Your task to perform on an android device: Show the shopping cart on ebay.com. Add logitech g903 to the cart on ebay.com, then select checkout. Image 0: 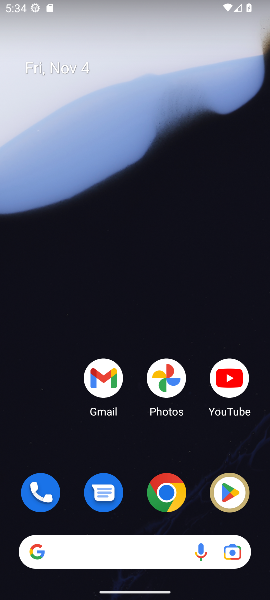
Step 0: drag from (125, 458) to (142, 16)
Your task to perform on an android device: Show the shopping cart on ebay.com. Add logitech g903 to the cart on ebay.com, then select checkout. Image 1: 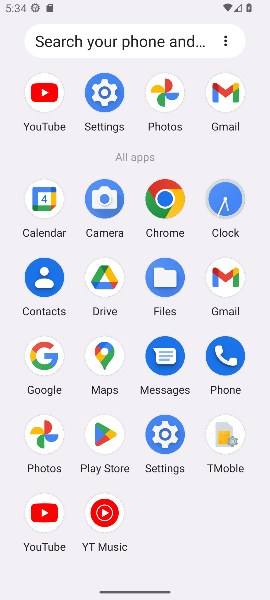
Step 1: click (164, 198)
Your task to perform on an android device: Show the shopping cart on ebay.com. Add logitech g903 to the cart on ebay.com, then select checkout. Image 2: 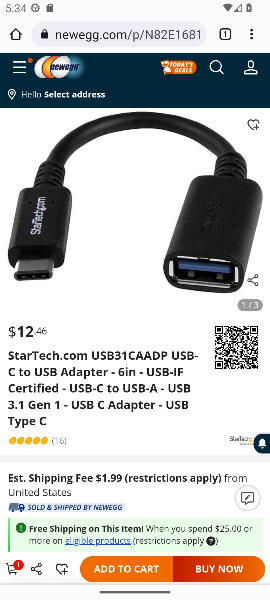
Step 2: click (164, 29)
Your task to perform on an android device: Show the shopping cart on ebay.com. Add logitech g903 to the cart on ebay.com, then select checkout. Image 3: 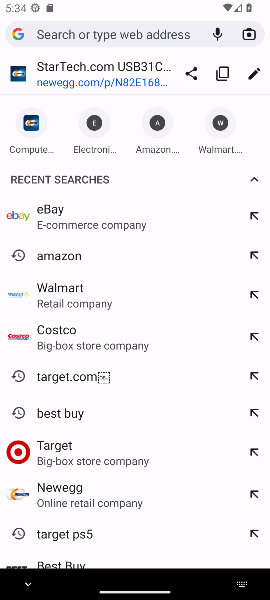
Step 3: type "ebay.com"
Your task to perform on an android device: Show the shopping cart on ebay.com. Add logitech g903 to the cart on ebay.com, then select checkout. Image 4: 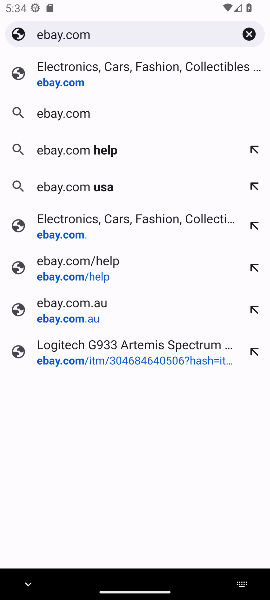
Step 4: press enter
Your task to perform on an android device: Show the shopping cart on ebay.com. Add logitech g903 to the cart on ebay.com, then select checkout. Image 5: 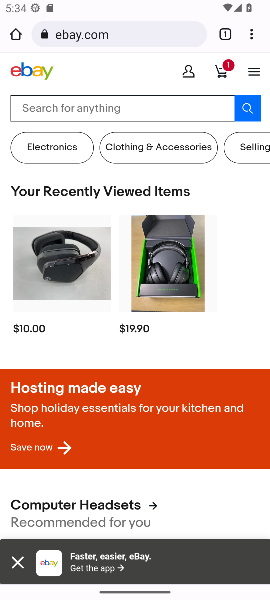
Step 5: click (225, 74)
Your task to perform on an android device: Show the shopping cart on ebay.com. Add logitech g903 to the cart on ebay.com, then select checkout. Image 6: 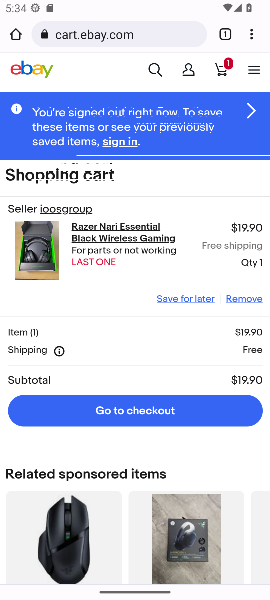
Step 6: click (157, 66)
Your task to perform on an android device: Show the shopping cart on ebay.com. Add logitech g903 to the cart on ebay.com, then select checkout. Image 7: 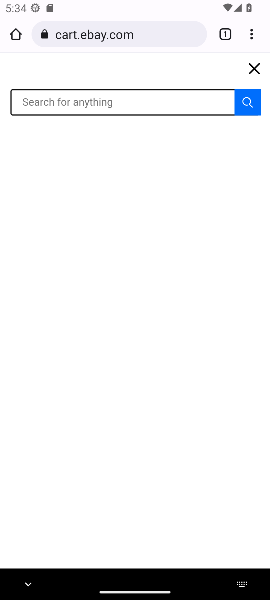
Step 7: type "logitech g903"
Your task to perform on an android device: Show the shopping cart on ebay.com. Add logitech g903 to the cart on ebay.com, then select checkout. Image 8: 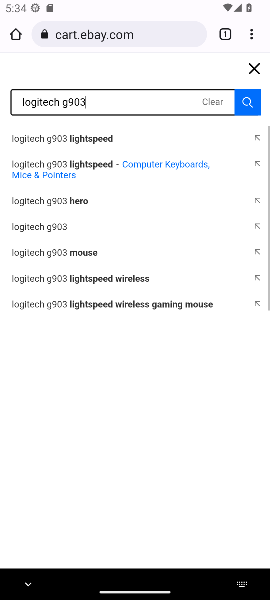
Step 8: press enter
Your task to perform on an android device: Show the shopping cart on ebay.com. Add logitech g903 to the cart on ebay.com, then select checkout. Image 9: 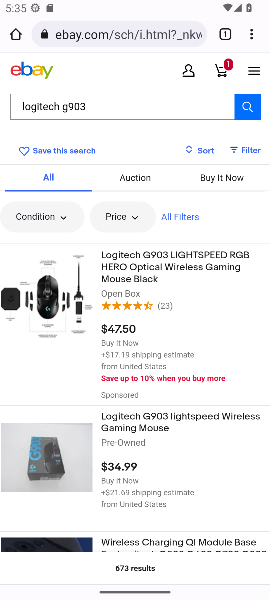
Step 9: click (135, 260)
Your task to perform on an android device: Show the shopping cart on ebay.com. Add logitech g903 to the cart on ebay.com, then select checkout. Image 10: 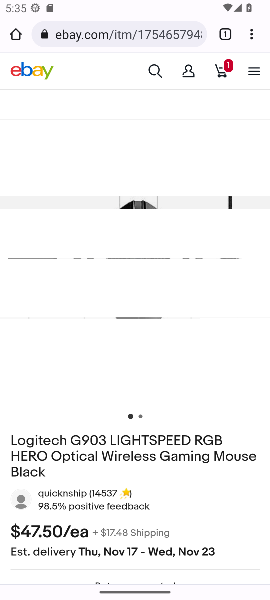
Step 10: drag from (159, 482) to (141, 42)
Your task to perform on an android device: Show the shopping cart on ebay.com. Add logitech g903 to the cart on ebay.com, then select checkout. Image 11: 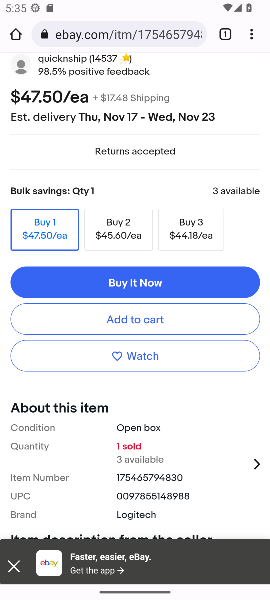
Step 11: click (150, 319)
Your task to perform on an android device: Show the shopping cart on ebay.com. Add logitech g903 to the cart on ebay.com, then select checkout. Image 12: 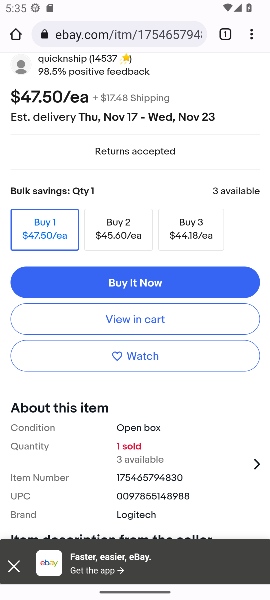
Step 12: click (150, 319)
Your task to perform on an android device: Show the shopping cart on ebay.com. Add logitech g903 to the cart on ebay.com, then select checkout. Image 13: 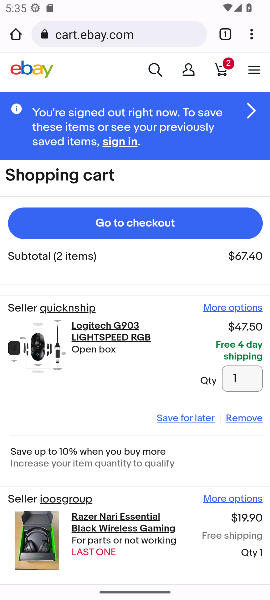
Step 13: click (159, 219)
Your task to perform on an android device: Show the shopping cart on ebay.com. Add logitech g903 to the cart on ebay.com, then select checkout. Image 14: 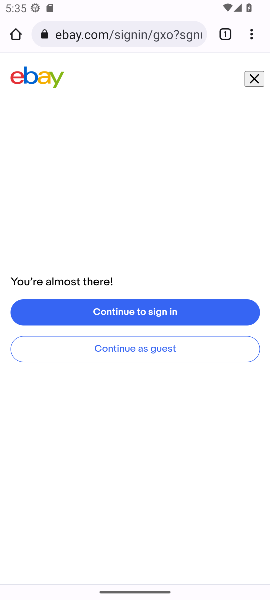
Step 14: task complete